Your task to perform on an android device: Open CNN.com Image 0: 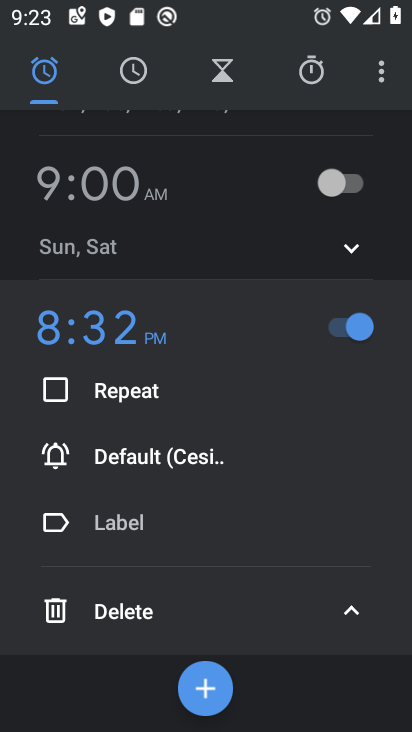
Step 0: press home button
Your task to perform on an android device: Open CNN.com Image 1: 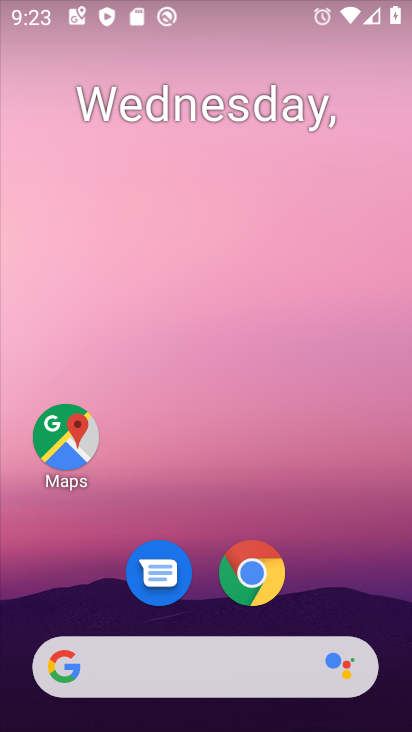
Step 1: drag from (231, 623) to (257, 118)
Your task to perform on an android device: Open CNN.com Image 2: 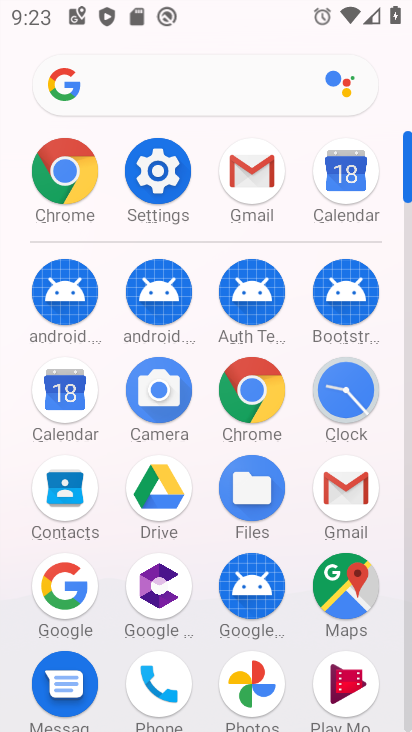
Step 2: click (240, 416)
Your task to perform on an android device: Open CNN.com Image 3: 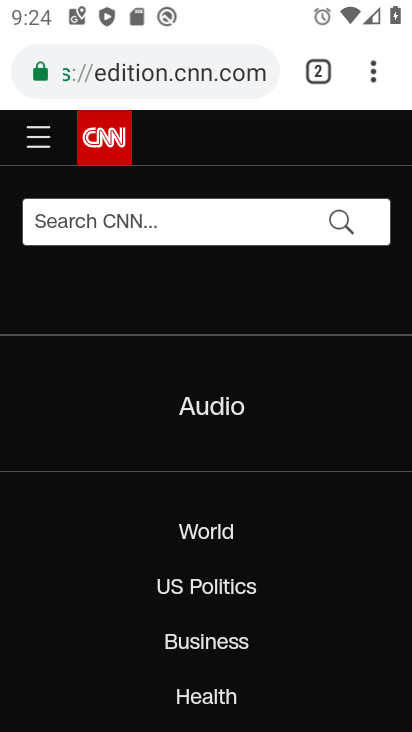
Step 3: task complete